Your task to perform on an android device: Go to settings Image 0: 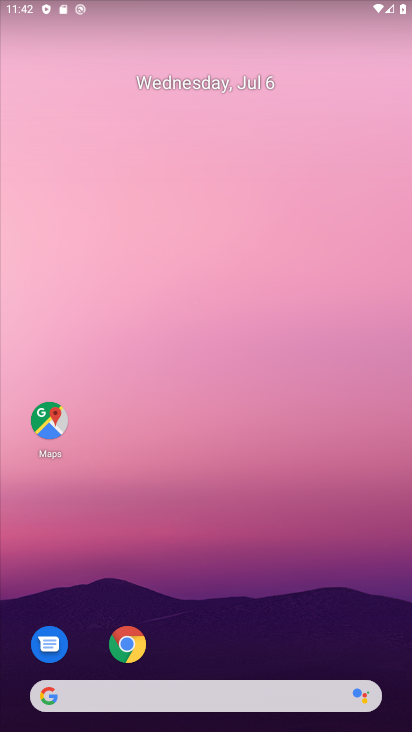
Step 0: drag from (240, 702) to (242, 72)
Your task to perform on an android device: Go to settings Image 1: 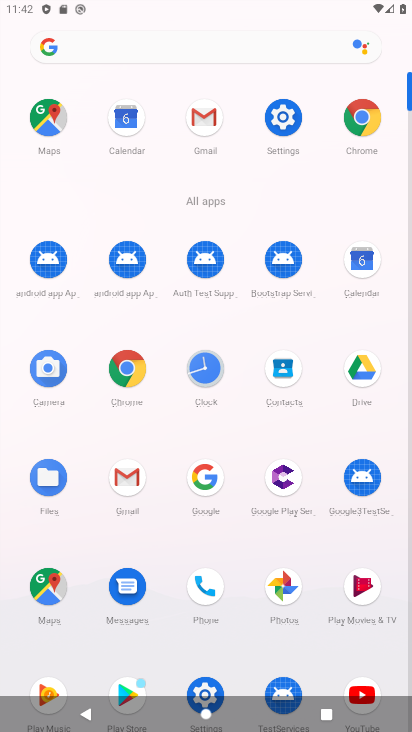
Step 1: click (271, 126)
Your task to perform on an android device: Go to settings Image 2: 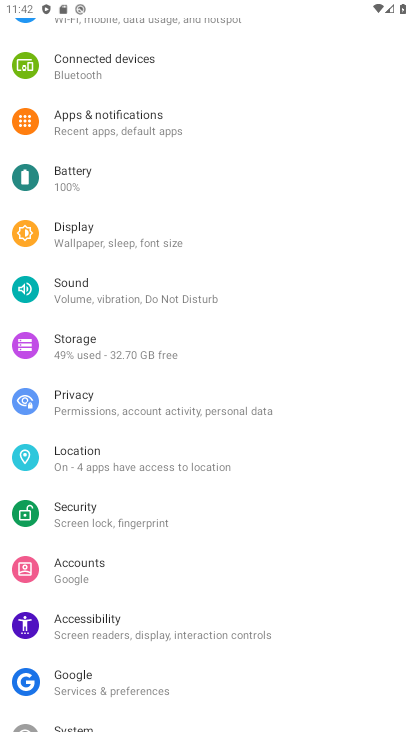
Step 2: task complete